Your task to perform on an android device: move an email to a new category in the gmail app Image 0: 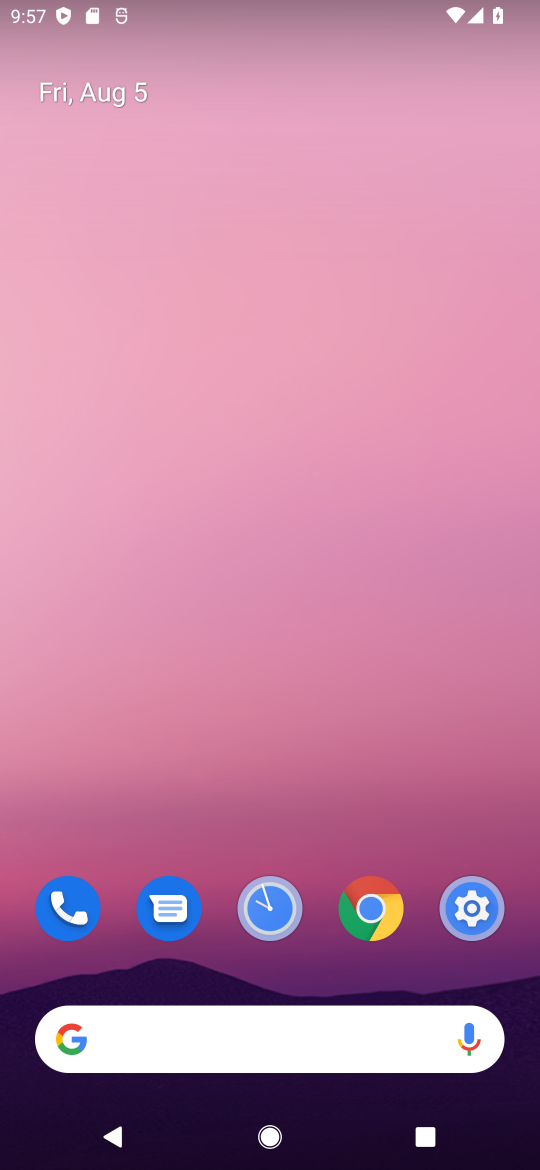
Step 0: click (272, 0)
Your task to perform on an android device: move an email to a new category in the gmail app Image 1: 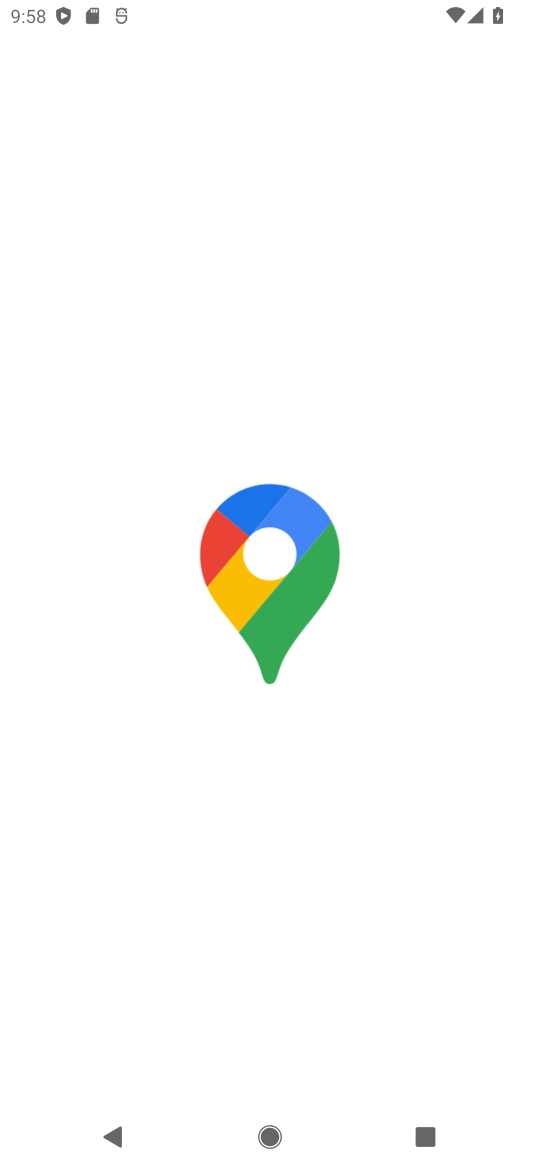
Step 1: task complete